Your task to perform on an android device: Open the calendar and show me this week's events? Image 0: 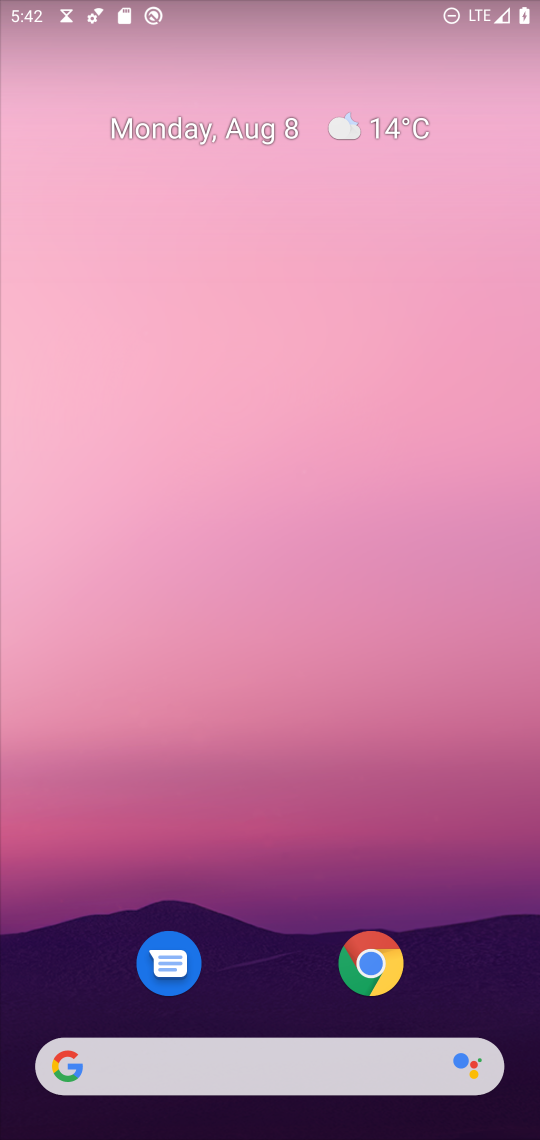
Step 0: drag from (276, 909) to (252, 400)
Your task to perform on an android device: Open the calendar and show me this week's events? Image 1: 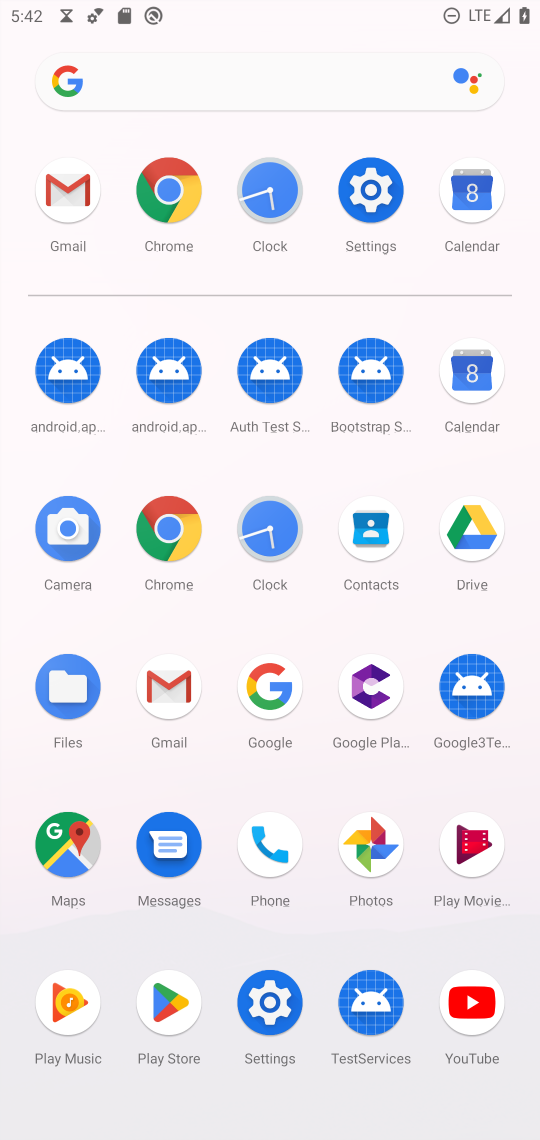
Step 1: click (468, 373)
Your task to perform on an android device: Open the calendar and show me this week's events? Image 2: 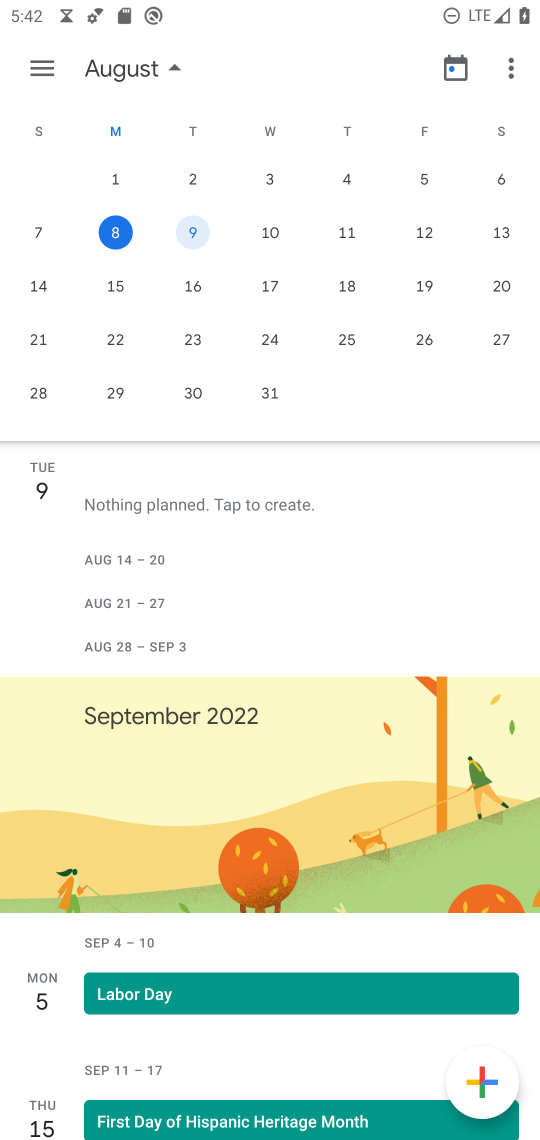
Step 2: click (197, 230)
Your task to perform on an android device: Open the calendar and show me this week's events? Image 3: 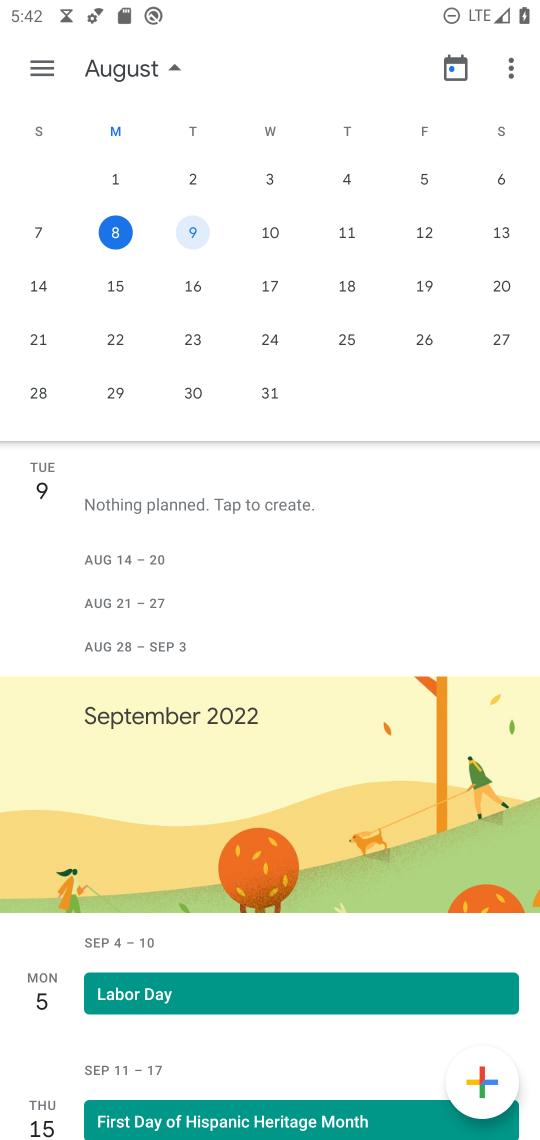
Step 3: click (285, 231)
Your task to perform on an android device: Open the calendar and show me this week's events? Image 4: 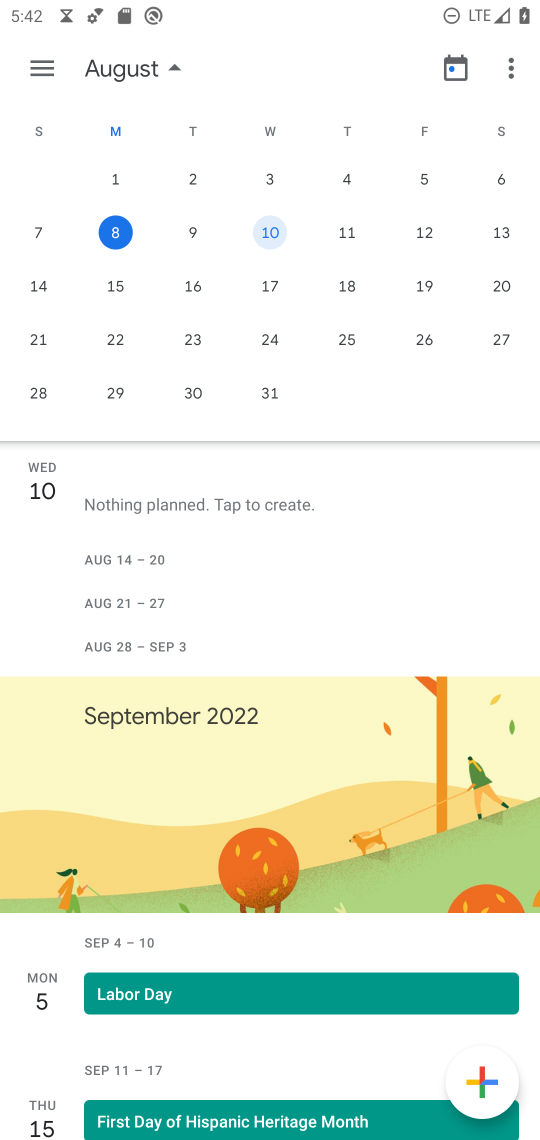
Step 4: click (369, 235)
Your task to perform on an android device: Open the calendar and show me this week's events? Image 5: 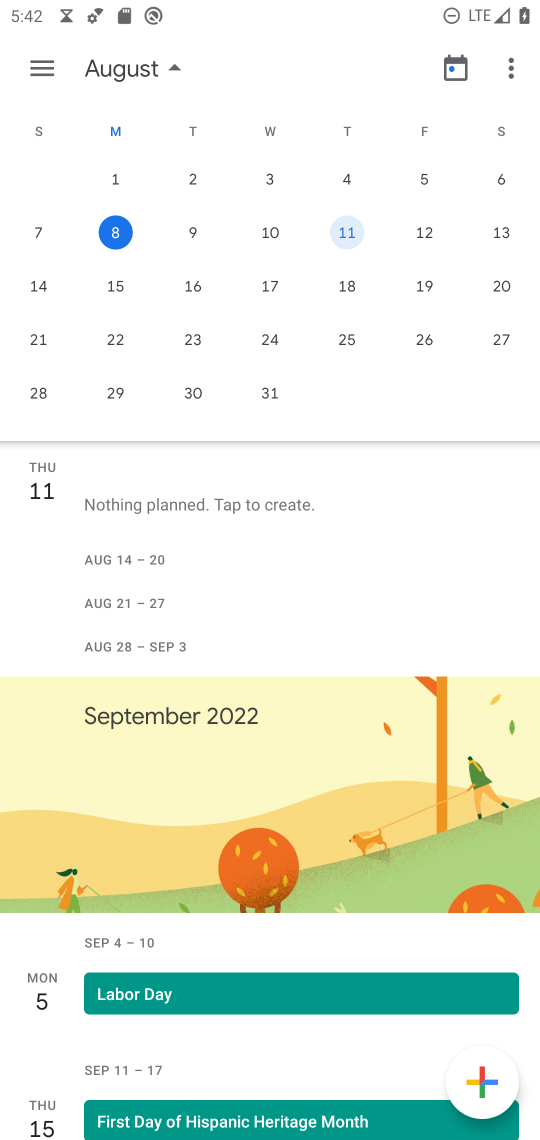
Step 5: click (429, 246)
Your task to perform on an android device: Open the calendar and show me this week's events? Image 6: 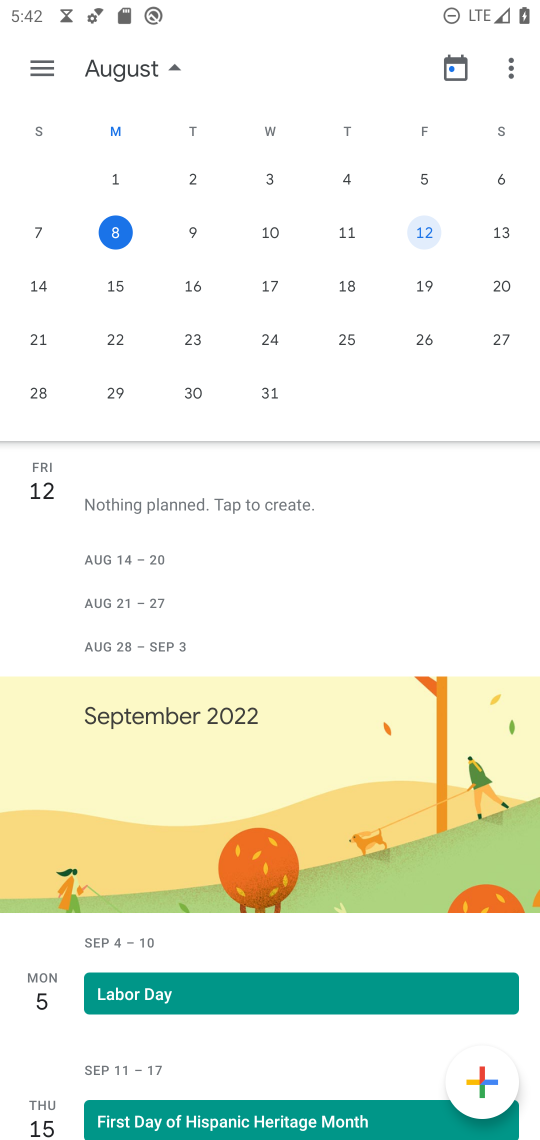
Step 6: click (508, 238)
Your task to perform on an android device: Open the calendar and show me this week's events? Image 7: 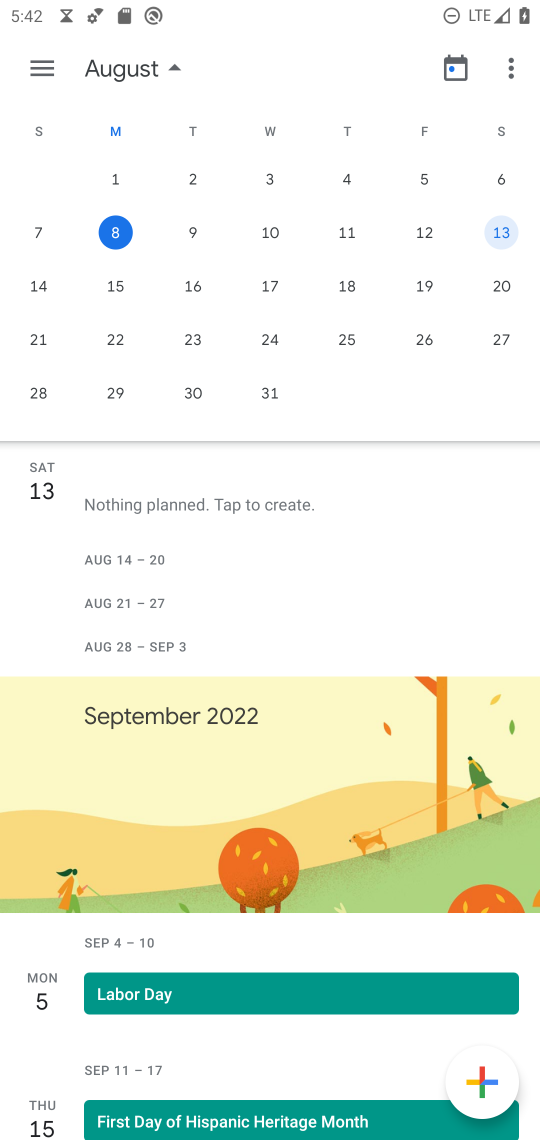
Step 7: task complete